Your task to perform on an android device: Go to notification settings Image 0: 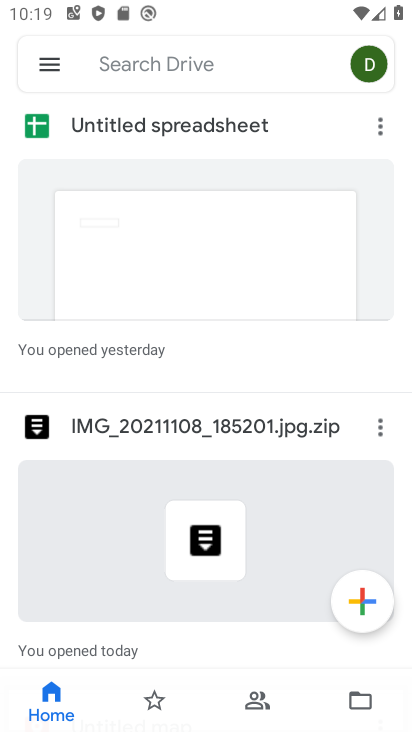
Step 0: press home button
Your task to perform on an android device: Go to notification settings Image 1: 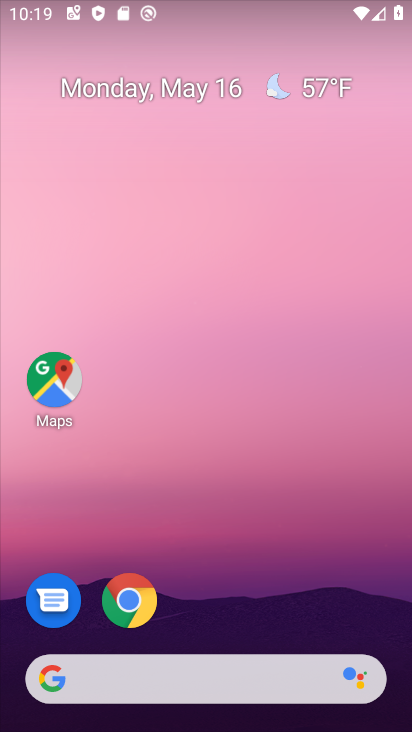
Step 1: drag from (380, 578) to (309, 149)
Your task to perform on an android device: Go to notification settings Image 2: 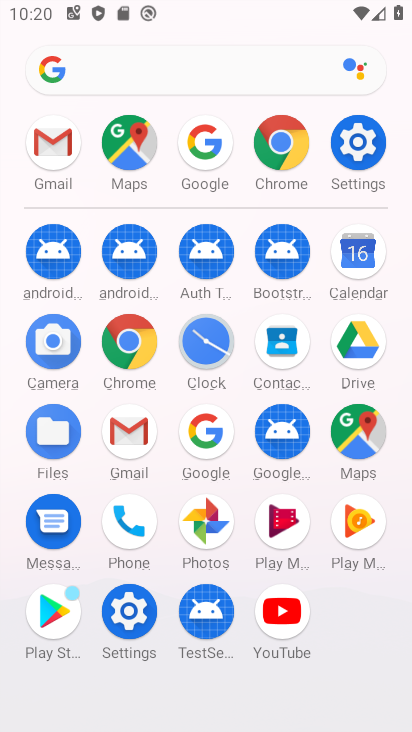
Step 2: click (122, 621)
Your task to perform on an android device: Go to notification settings Image 3: 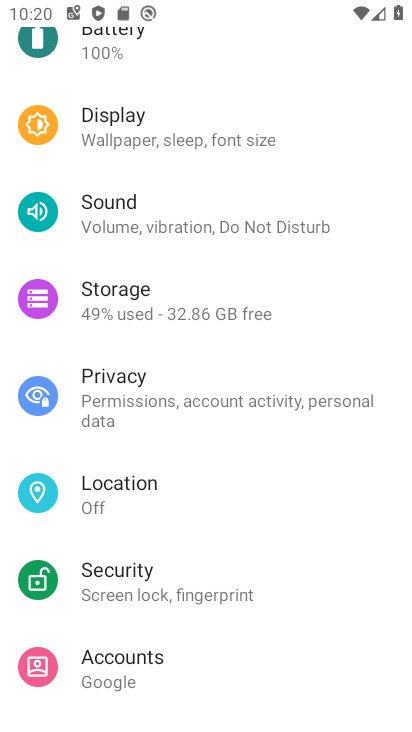
Step 3: drag from (204, 304) to (210, 602)
Your task to perform on an android device: Go to notification settings Image 4: 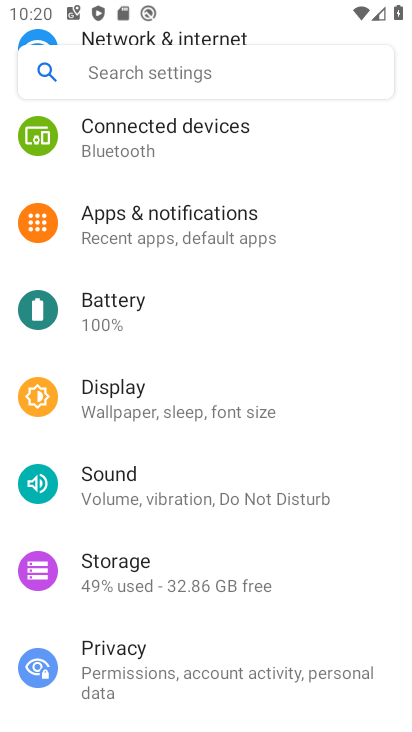
Step 4: click (165, 222)
Your task to perform on an android device: Go to notification settings Image 5: 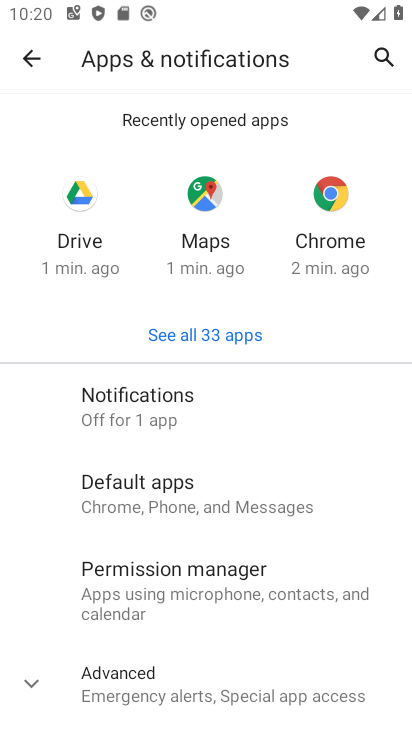
Step 5: click (156, 396)
Your task to perform on an android device: Go to notification settings Image 6: 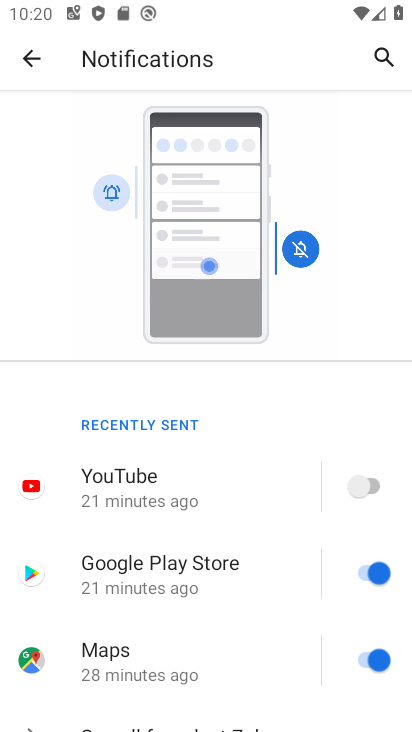
Step 6: task complete